Your task to perform on an android device: Open Amazon Image 0: 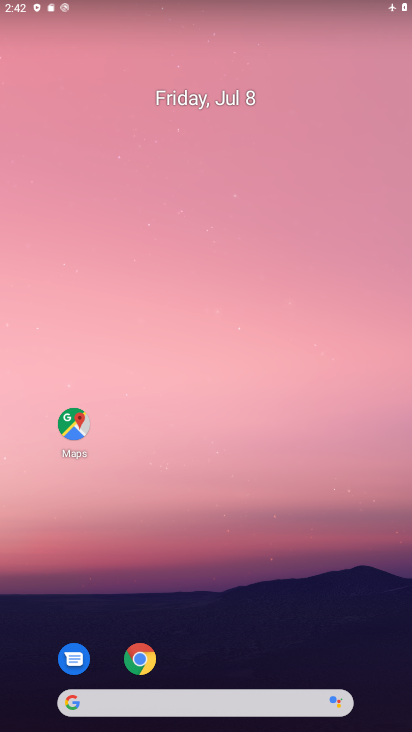
Step 0: drag from (235, 630) to (248, 119)
Your task to perform on an android device: Open Amazon Image 1: 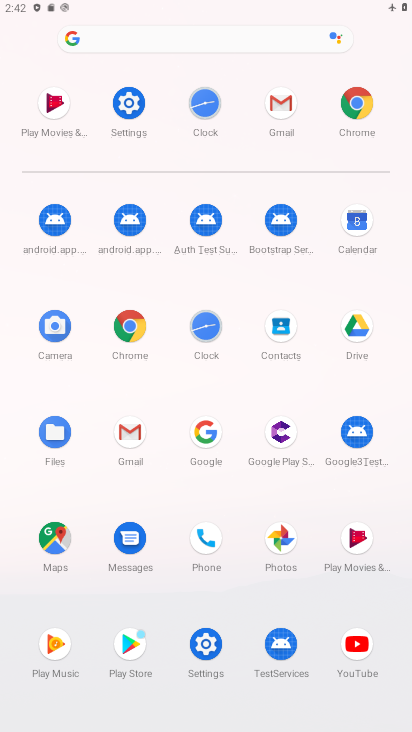
Step 1: click (138, 344)
Your task to perform on an android device: Open Amazon Image 2: 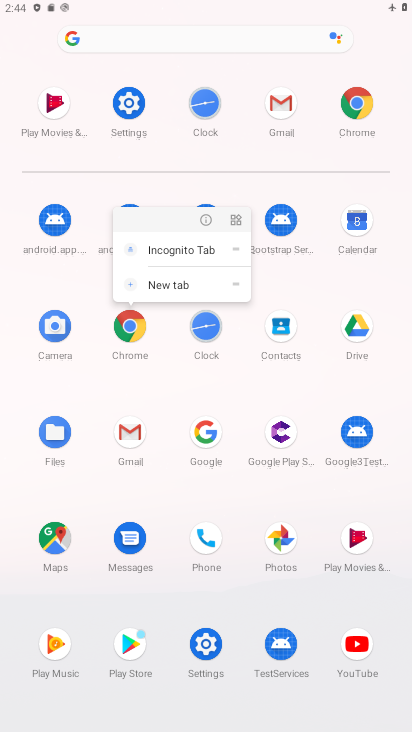
Step 2: click (131, 332)
Your task to perform on an android device: Open Amazon Image 3: 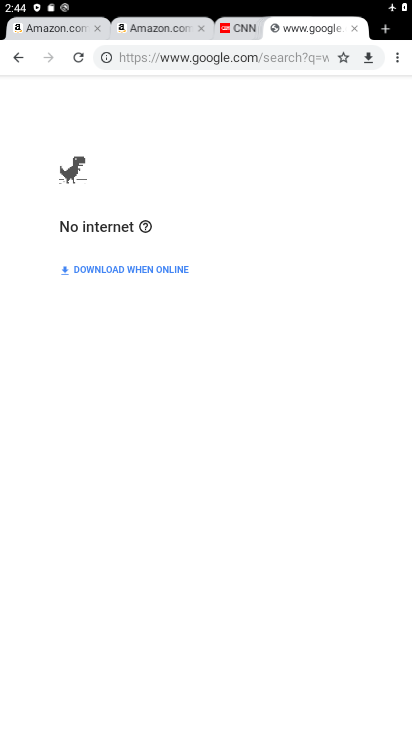
Step 3: click (153, 28)
Your task to perform on an android device: Open Amazon Image 4: 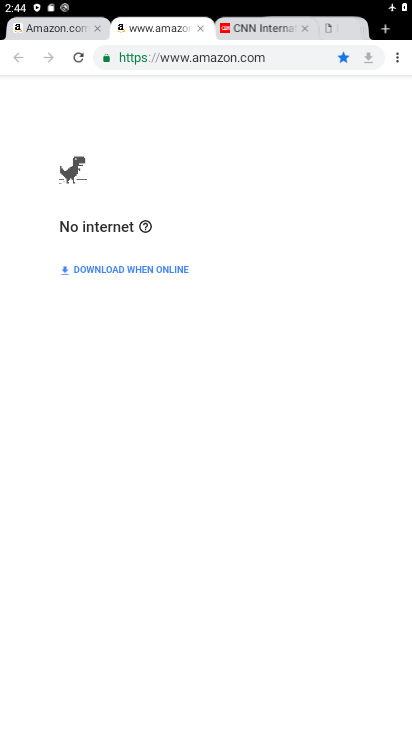
Step 4: click (92, 184)
Your task to perform on an android device: Open Amazon Image 5: 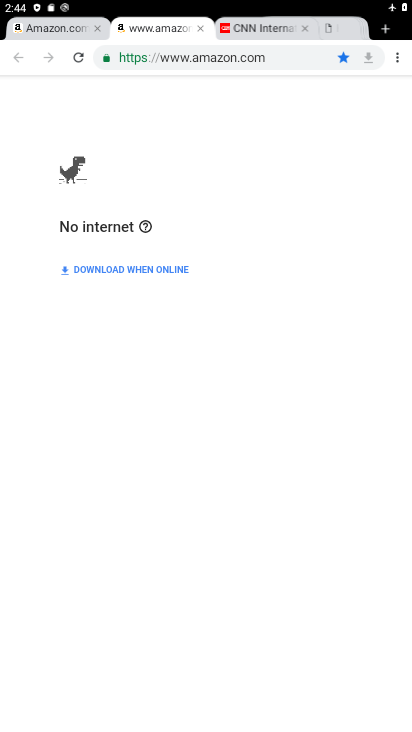
Step 5: click (75, 176)
Your task to perform on an android device: Open Amazon Image 6: 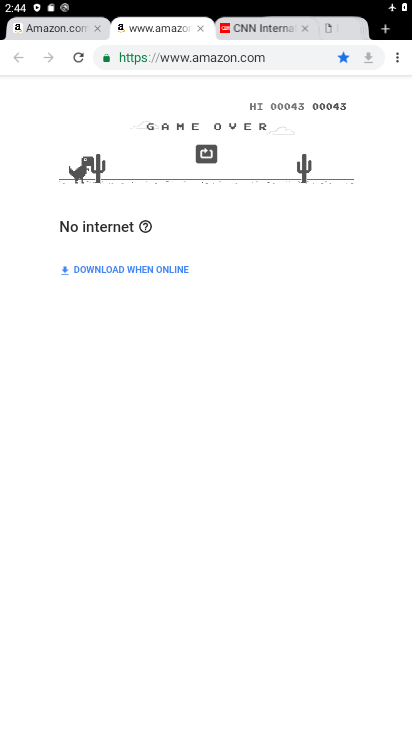
Step 6: click (82, 178)
Your task to perform on an android device: Open Amazon Image 7: 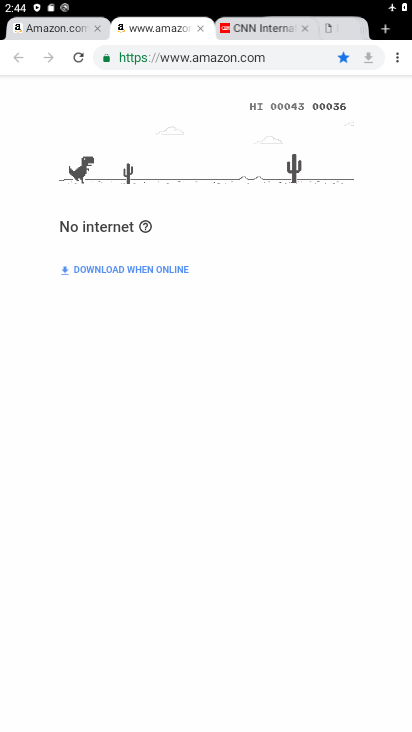
Step 7: drag from (97, 163) to (211, 161)
Your task to perform on an android device: Open Amazon Image 8: 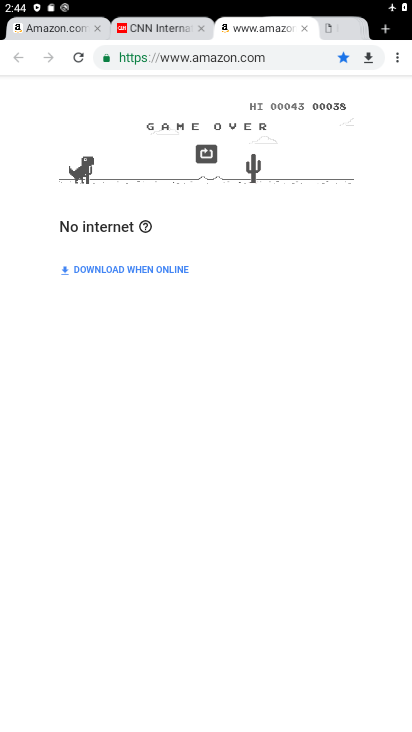
Step 8: click (139, 162)
Your task to perform on an android device: Open Amazon Image 9: 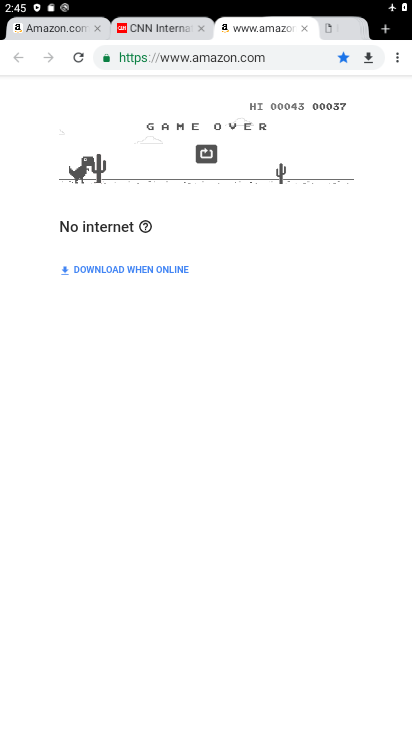
Step 9: task complete